Your task to perform on an android device: open app "Expedia: Hotels, Flights & Car" (install if not already installed) and go to login screen Image 0: 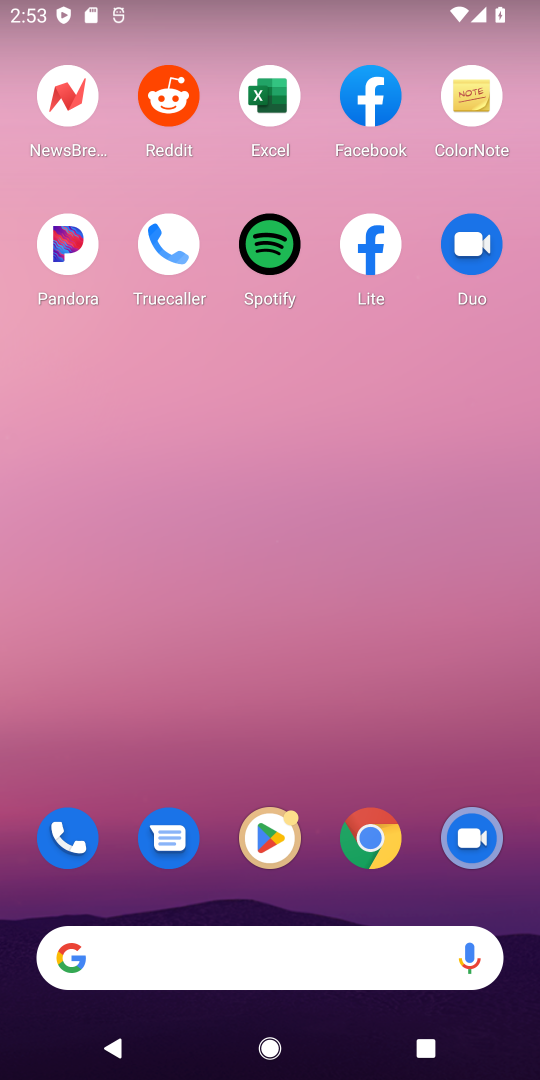
Step 0: press home button
Your task to perform on an android device: open app "Expedia: Hotels, Flights & Car" (install if not already installed) and go to login screen Image 1: 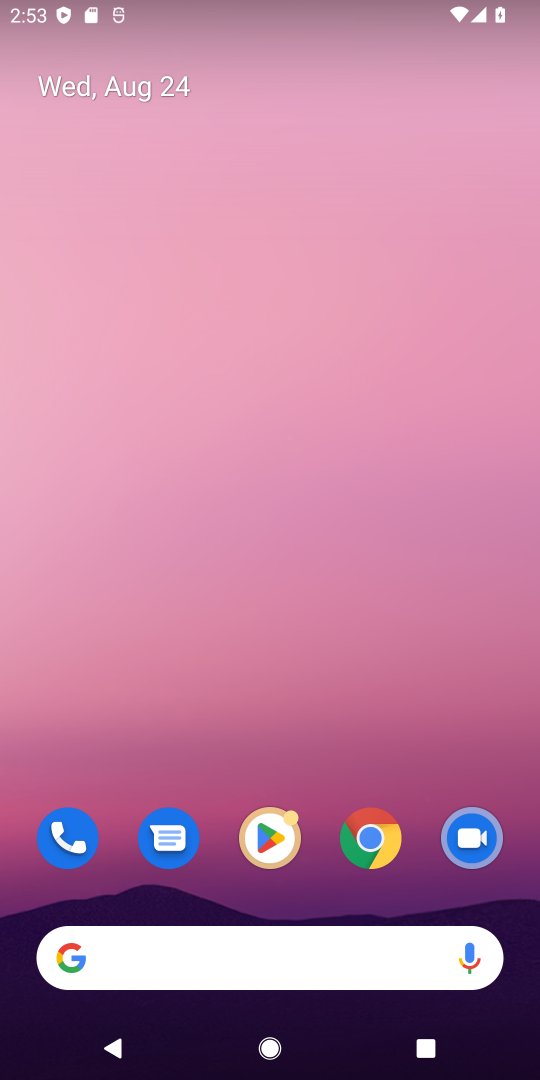
Step 1: drag from (423, 681) to (416, 88)
Your task to perform on an android device: open app "Expedia: Hotels, Flights & Car" (install if not already installed) and go to login screen Image 2: 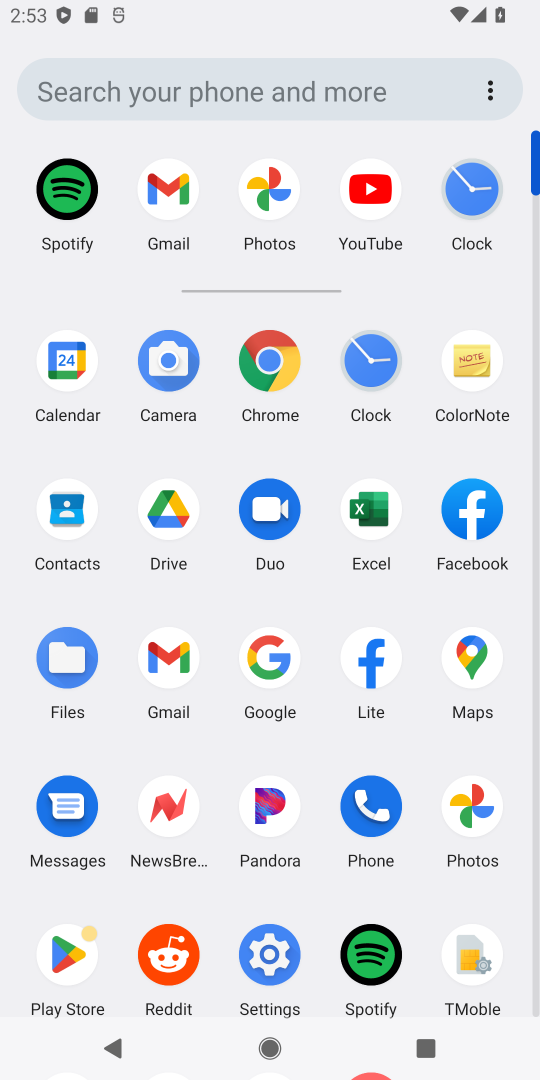
Step 2: click (70, 953)
Your task to perform on an android device: open app "Expedia: Hotels, Flights & Car" (install if not already installed) and go to login screen Image 3: 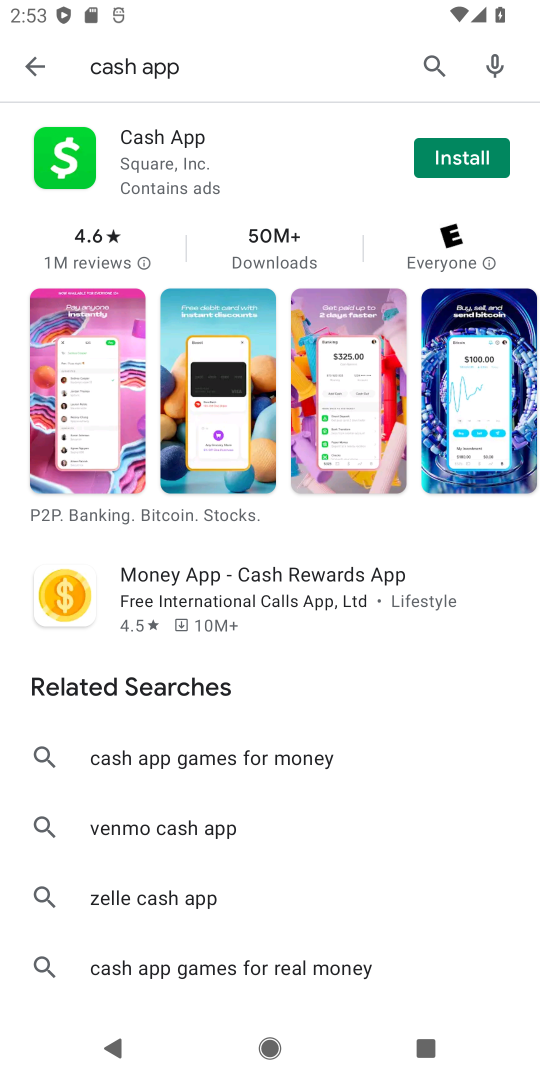
Step 3: press back button
Your task to perform on an android device: open app "Expedia: Hotels, Flights & Car" (install if not already installed) and go to login screen Image 4: 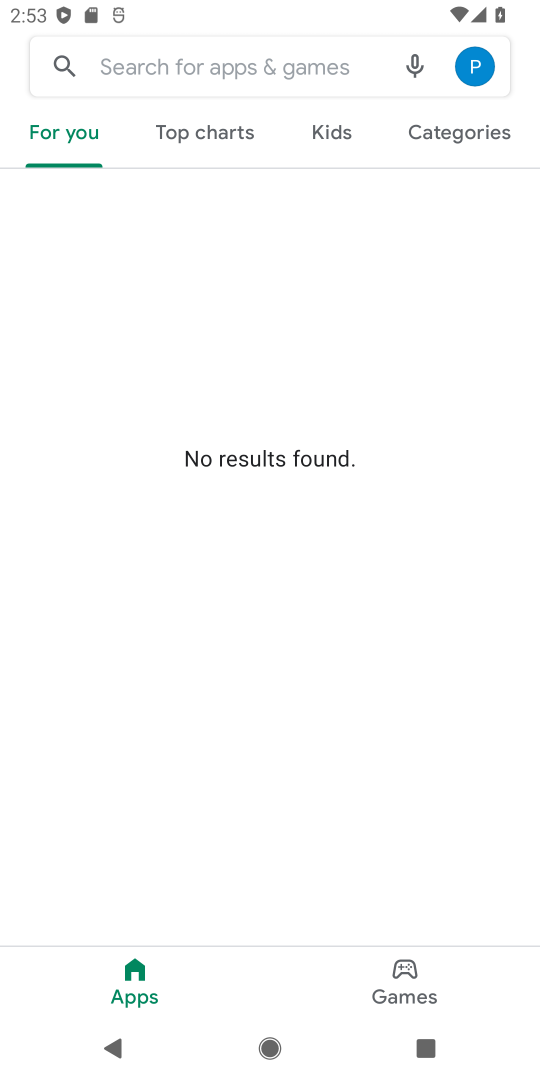
Step 4: click (235, 56)
Your task to perform on an android device: open app "Expedia: Hotels, Flights & Car" (install if not already installed) and go to login screen Image 5: 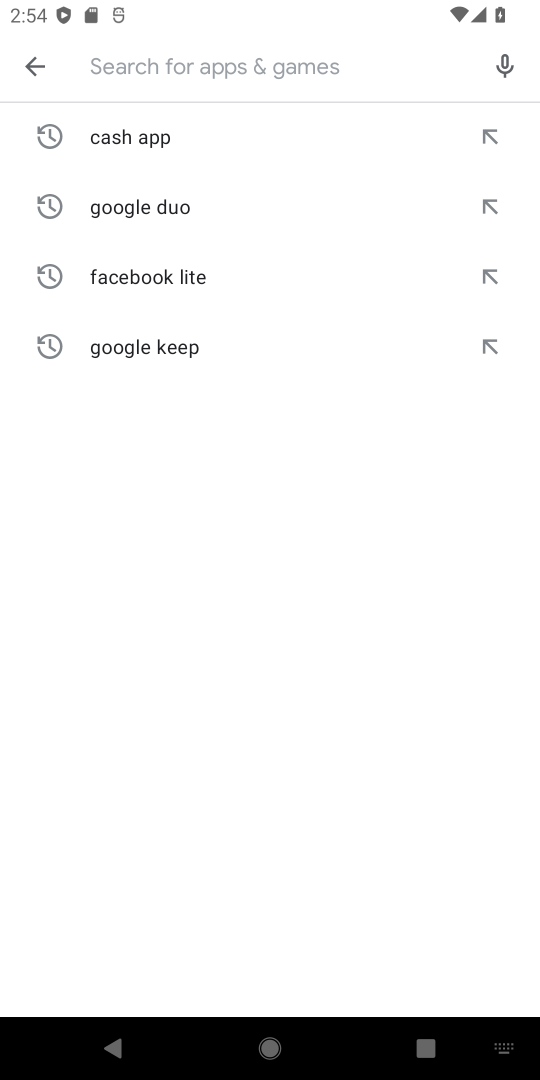
Step 5: type "Expedia: Hotels, Flights & Car"
Your task to perform on an android device: open app "Expedia: Hotels, Flights & Car" (install if not already installed) and go to login screen Image 6: 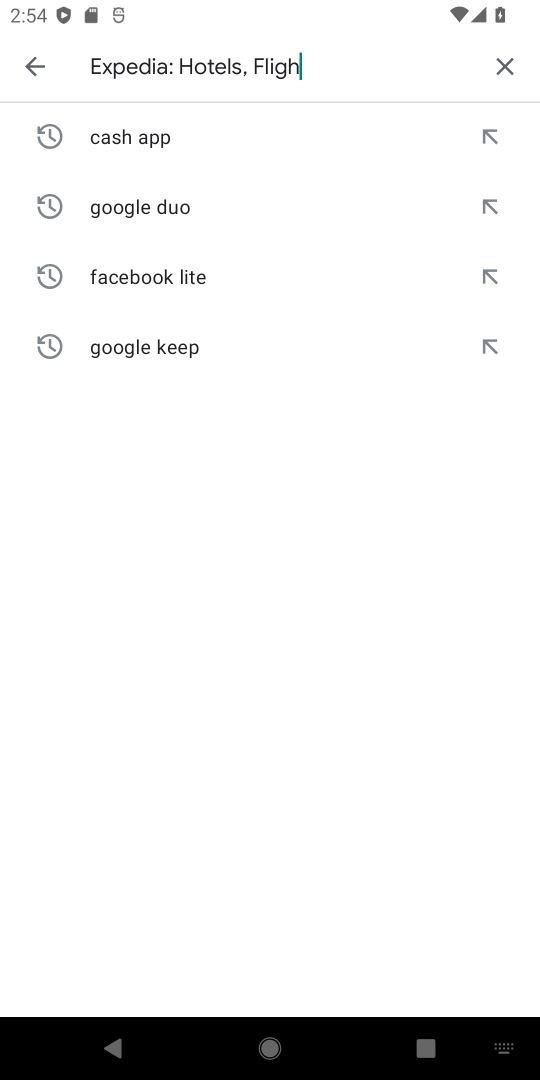
Step 6: press enter
Your task to perform on an android device: open app "Expedia: Hotels, Flights & Car" (install if not already installed) and go to login screen Image 7: 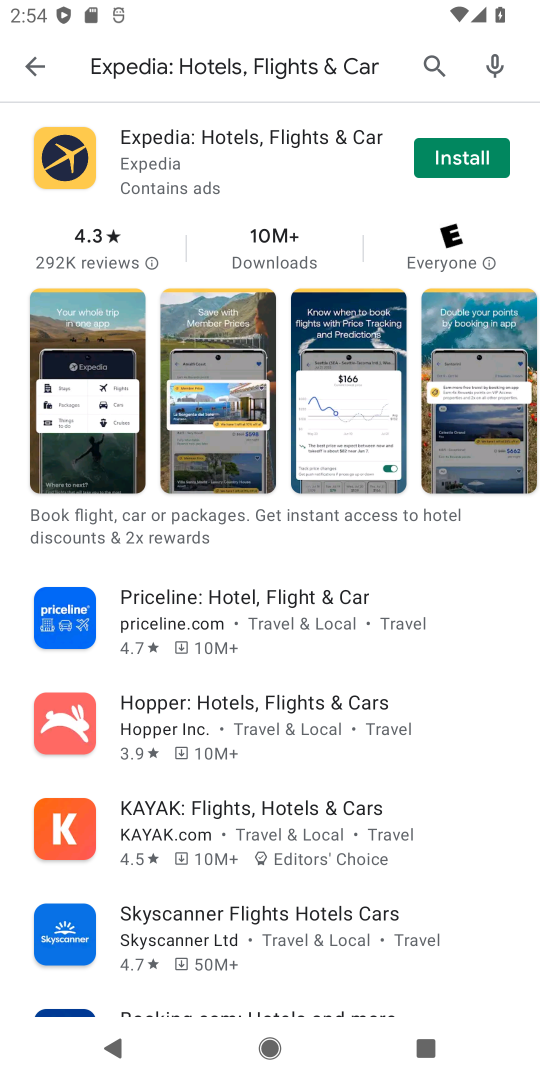
Step 7: click (467, 159)
Your task to perform on an android device: open app "Expedia: Hotels, Flights & Car" (install if not already installed) and go to login screen Image 8: 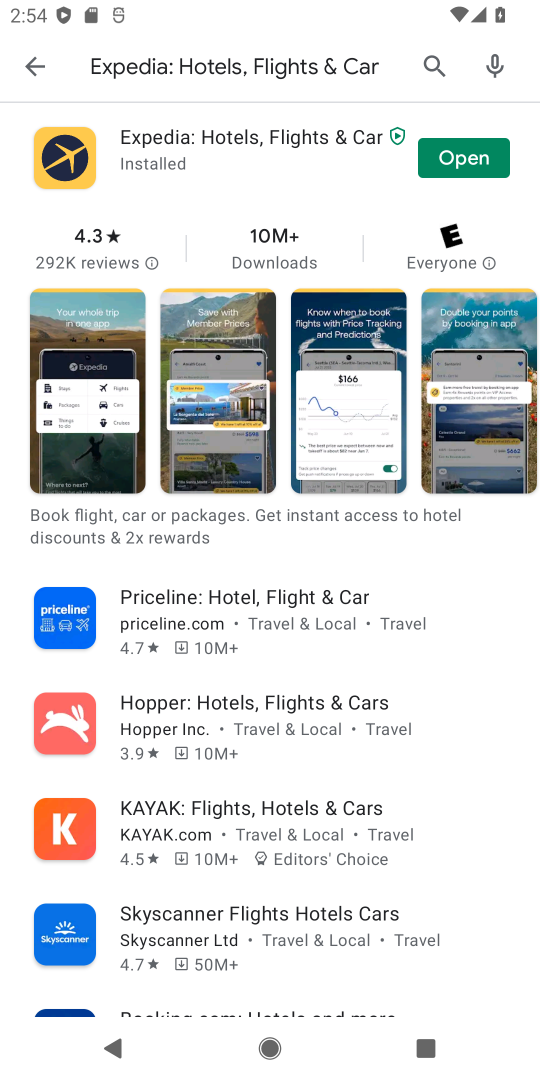
Step 8: click (485, 162)
Your task to perform on an android device: open app "Expedia: Hotels, Flights & Car" (install if not already installed) and go to login screen Image 9: 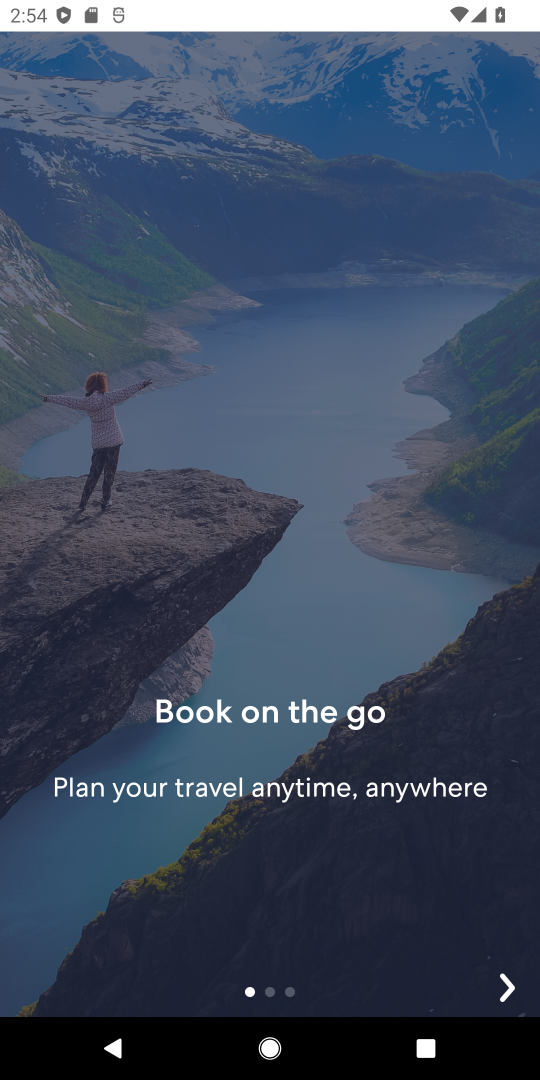
Step 9: click (486, 995)
Your task to perform on an android device: open app "Expedia: Hotels, Flights & Car" (install if not already installed) and go to login screen Image 10: 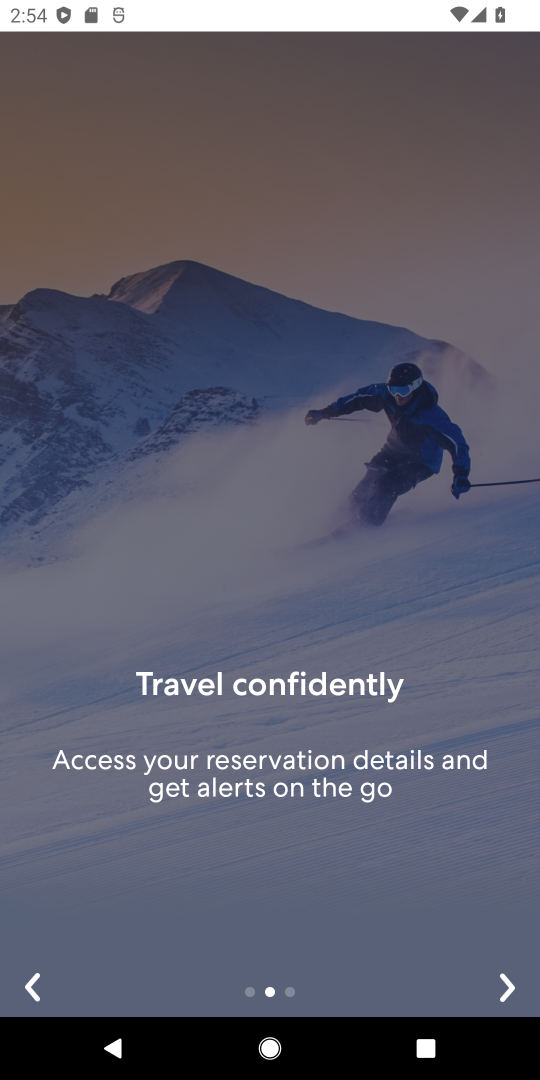
Step 10: click (506, 992)
Your task to perform on an android device: open app "Expedia: Hotels, Flights & Car" (install if not already installed) and go to login screen Image 11: 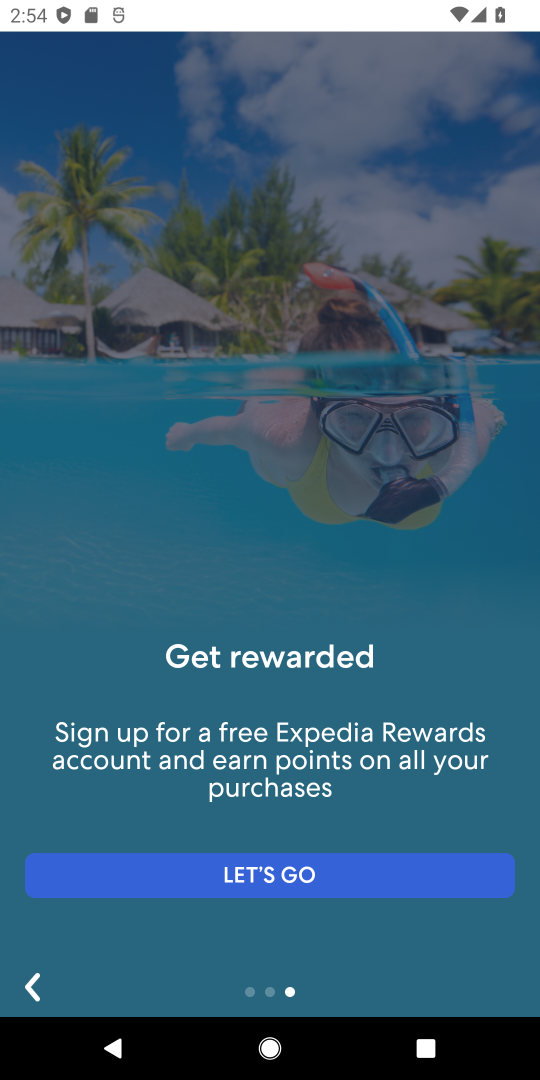
Step 11: click (350, 890)
Your task to perform on an android device: open app "Expedia: Hotels, Flights & Car" (install if not already installed) and go to login screen Image 12: 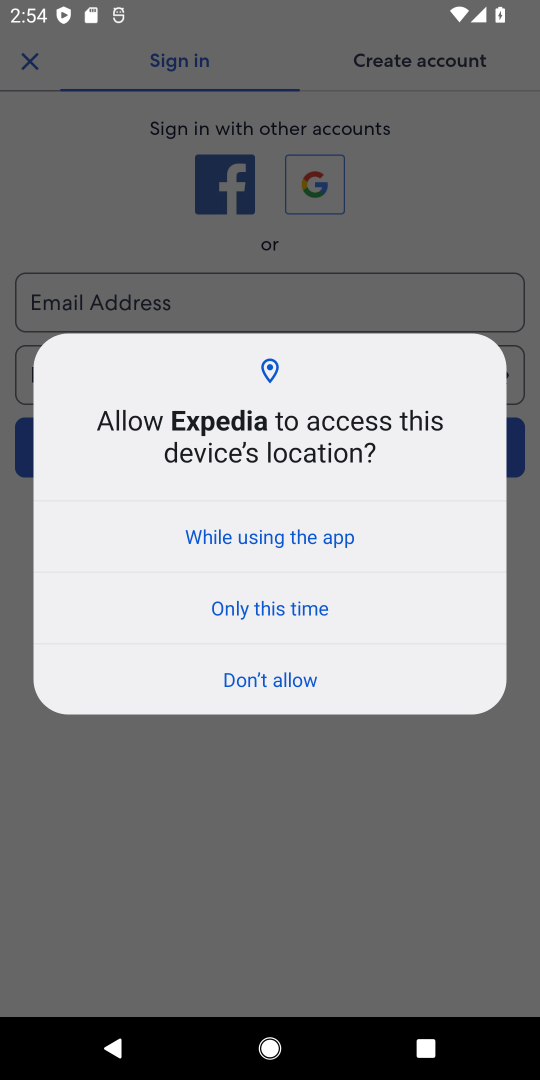
Step 12: click (321, 691)
Your task to perform on an android device: open app "Expedia: Hotels, Flights & Car" (install if not already installed) and go to login screen Image 13: 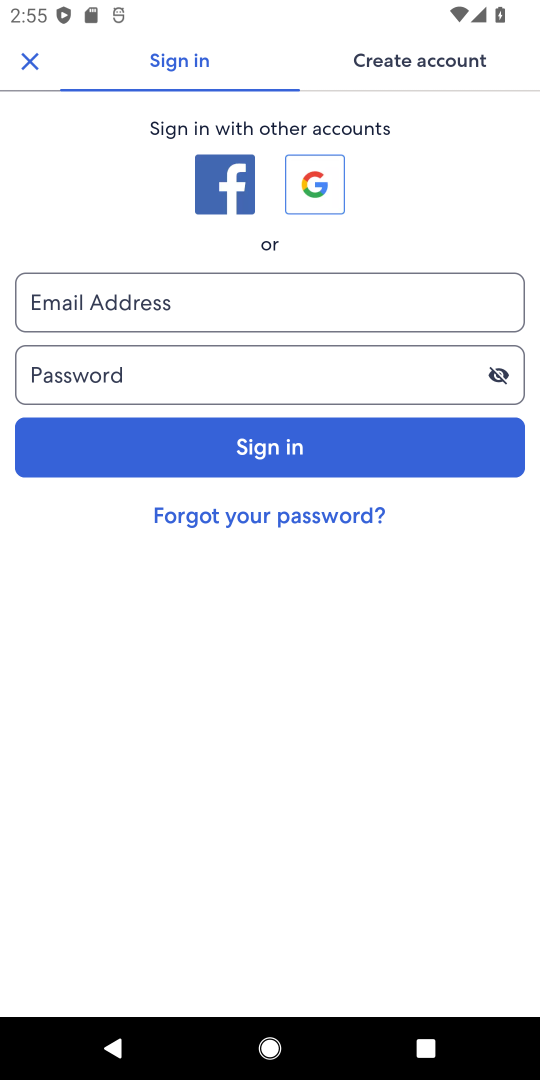
Step 13: task complete